Your task to perform on an android device: What is the news today? Image 0: 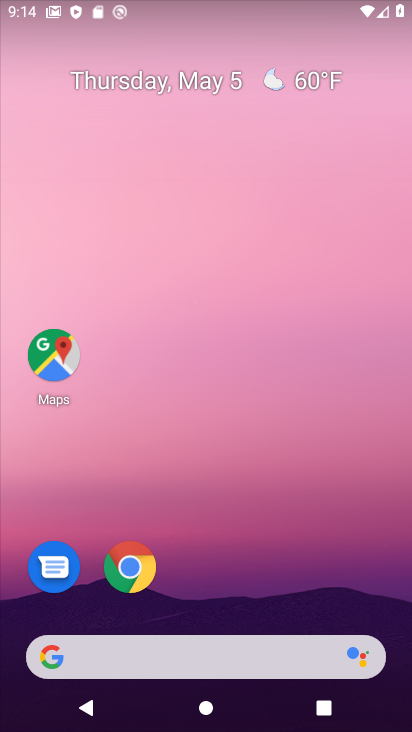
Step 0: drag from (202, 595) to (166, 149)
Your task to perform on an android device: What is the news today? Image 1: 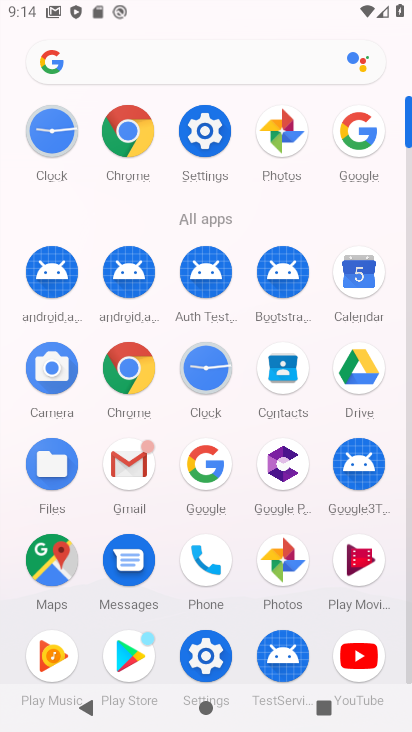
Step 1: click (219, 472)
Your task to perform on an android device: What is the news today? Image 2: 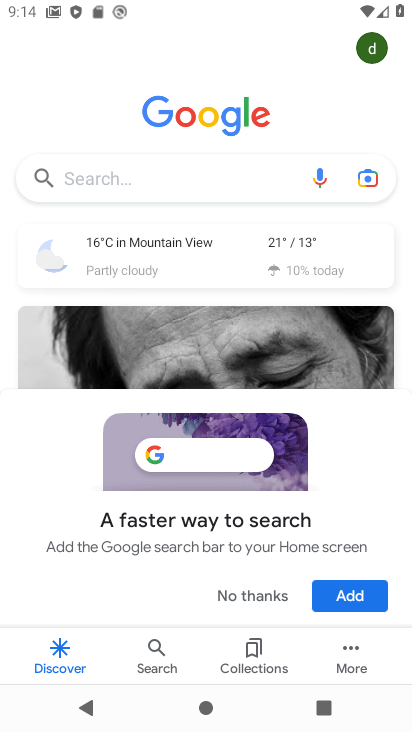
Step 2: click (222, 175)
Your task to perform on an android device: What is the news today? Image 3: 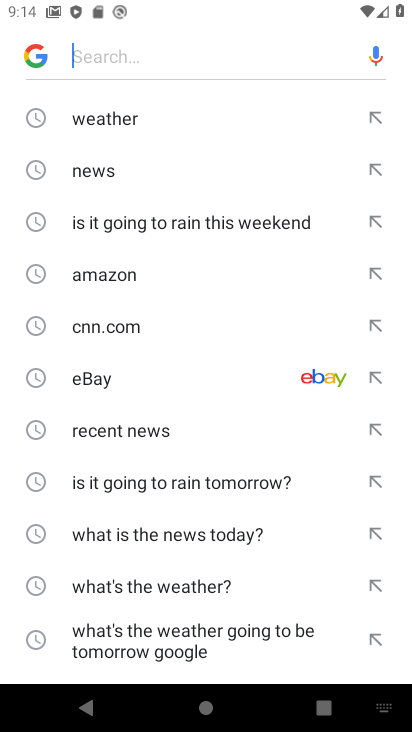
Step 3: type "news today"
Your task to perform on an android device: What is the news today? Image 4: 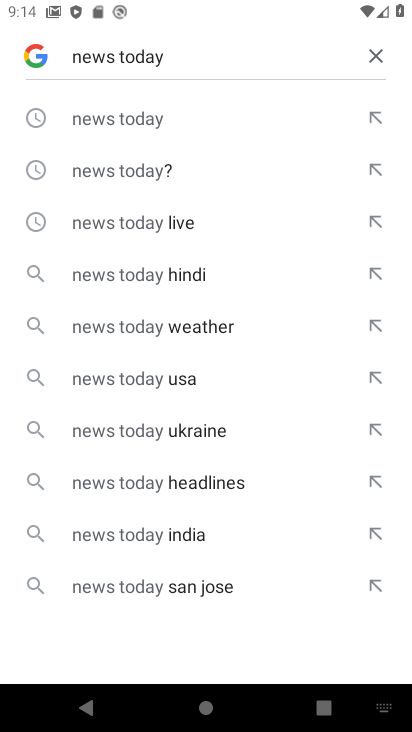
Step 4: click (210, 122)
Your task to perform on an android device: What is the news today? Image 5: 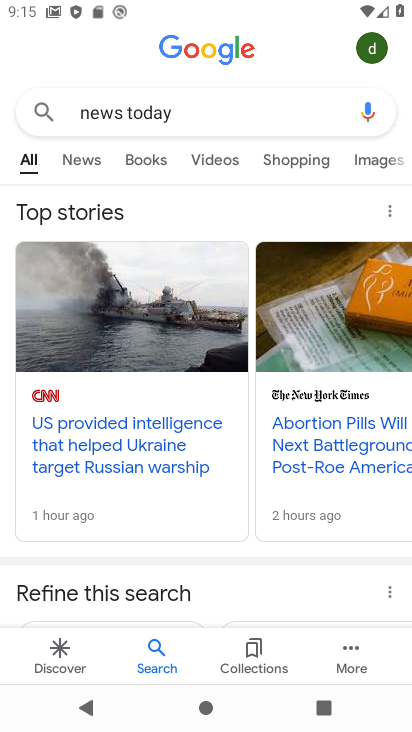
Step 5: task complete